Your task to perform on an android device: see sites visited before in the chrome app Image 0: 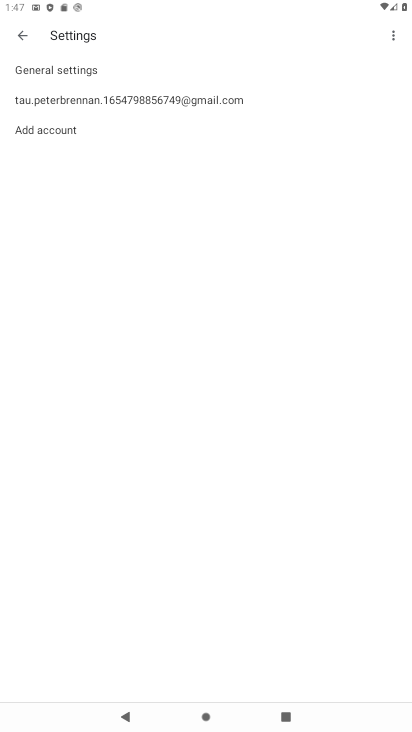
Step 0: press home button
Your task to perform on an android device: see sites visited before in the chrome app Image 1: 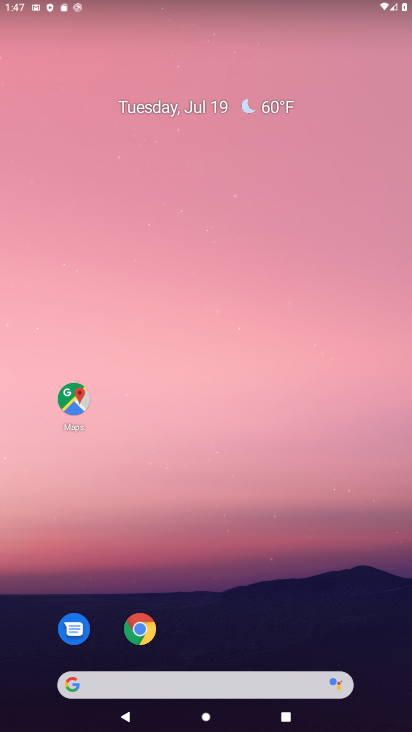
Step 1: click (142, 630)
Your task to perform on an android device: see sites visited before in the chrome app Image 2: 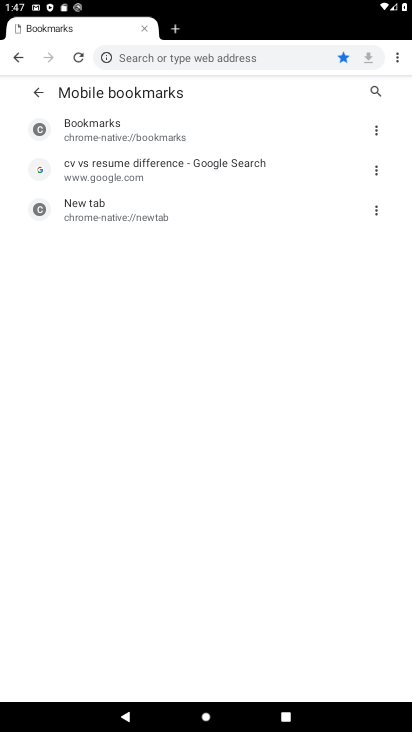
Step 2: click (397, 61)
Your task to perform on an android device: see sites visited before in the chrome app Image 3: 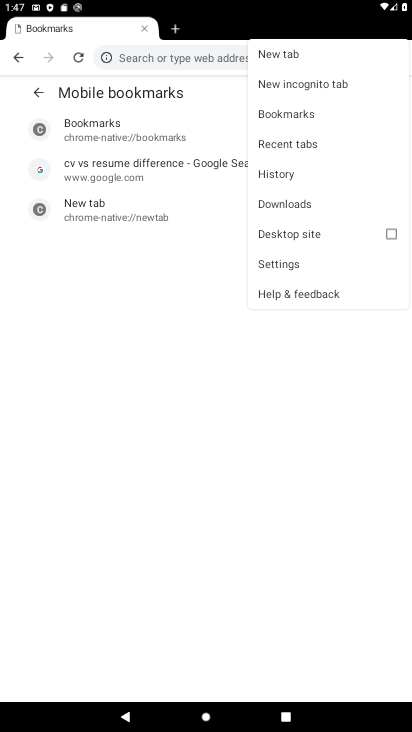
Step 3: click (274, 171)
Your task to perform on an android device: see sites visited before in the chrome app Image 4: 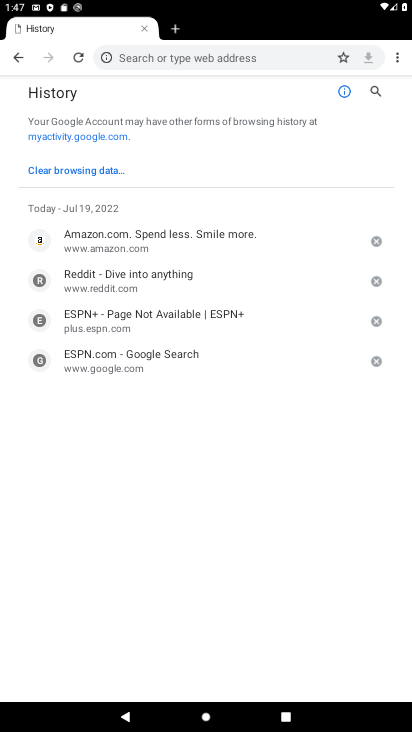
Step 4: task complete